Your task to perform on an android device: set the stopwatch Image 0: 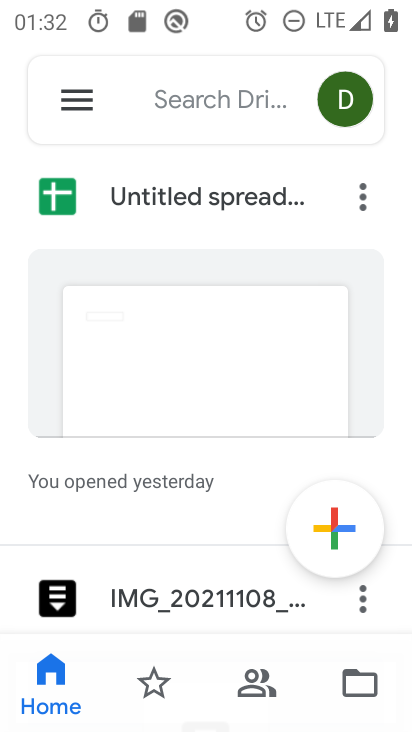
Step 0: press home button
Your task to perform on an android device: set the stopwatch Image 1: 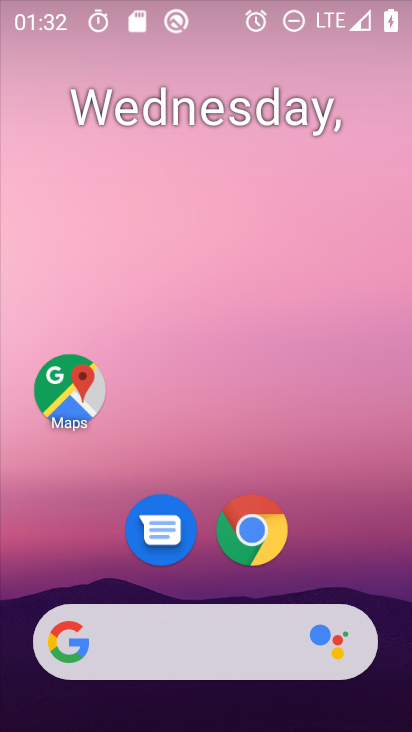
Step 1: drag from (324, 628) to (317, 35)
Your task to perform on an android device: set the stopwatch Image 2: 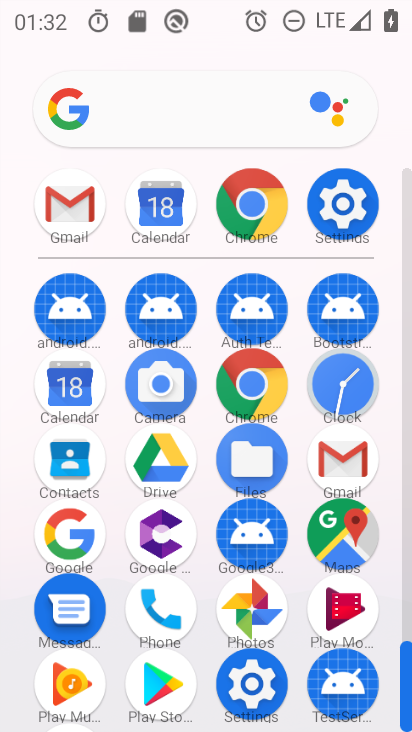
Step 2: click (348, 394)
Your task to perform on an android device: set the stopwatch Image 3: 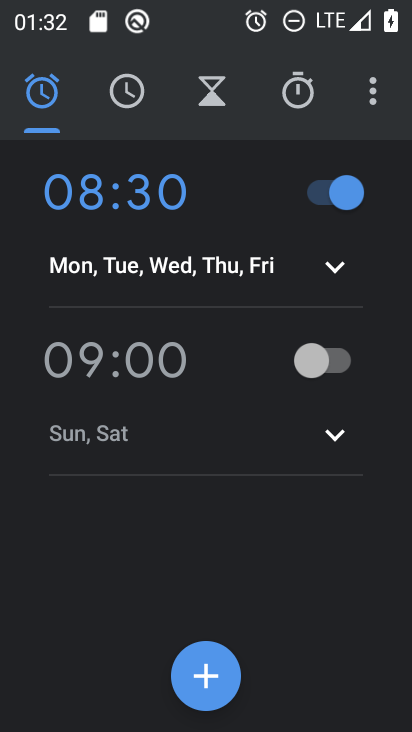
Step 3: click (298, 98)
Your task to perform on an android device: set the stopwatch Image 4: 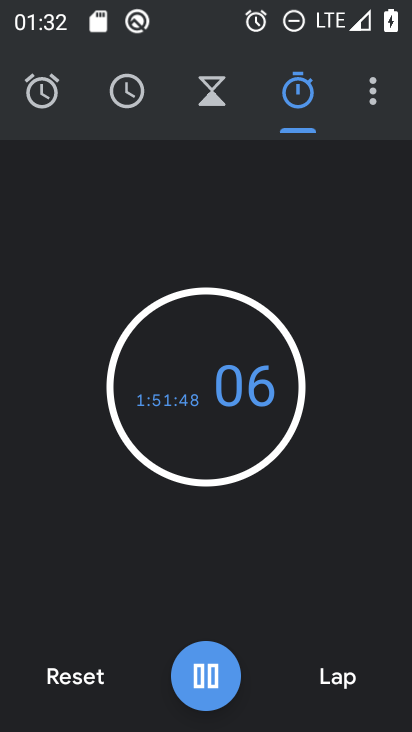
Step 4: task complete